Your task to perform on an android device: What's on my calendar today? Image 0: 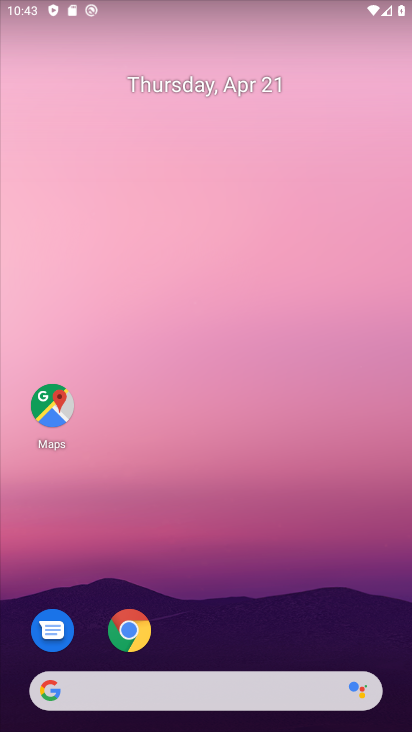
Step 0: drag from (308, 647) to (324, 136)
Your task to perform on an android device: What's on my calendar today? Image 1: 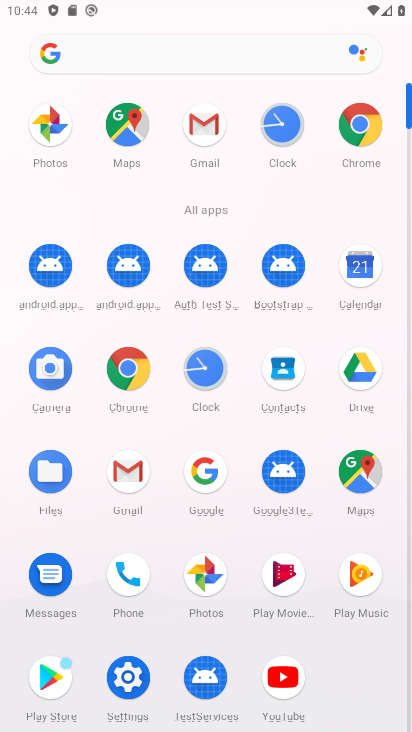
Step 1: drag from (259, 220) to (303, 39)
Your task to perform on an android device: What's on my calendar today? Image 2: 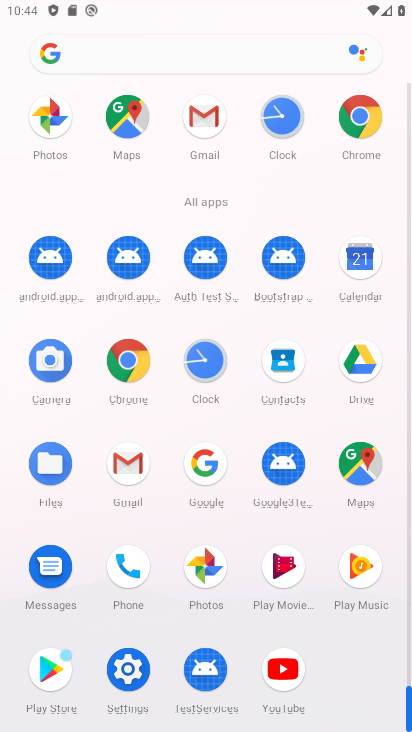
Step 2: click (365, 253)
Your task to perform on an android device: What's on my calendar today? Image 3: 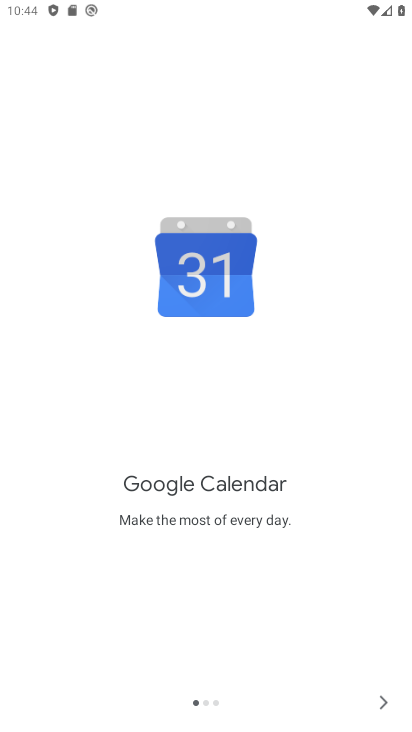
Step 3: click (379, 702)
Your task to perform on an android device: What's on my calendar today? Image 4: 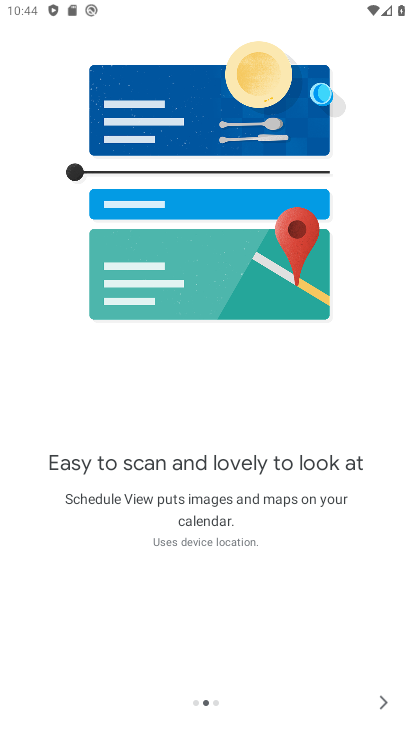
Step 4: click (379, 702)
Your task to perform on an android device: What's on my calendar today? Image 5: 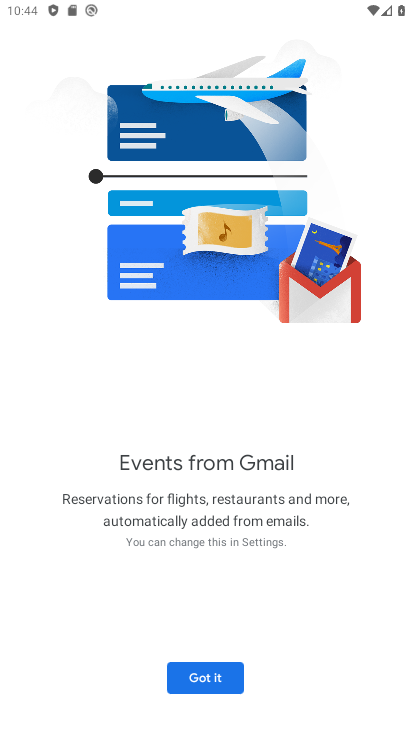
Step 5: click (239, 681)
Your task to perform on an android device: What's on my calendar today? Image 6: 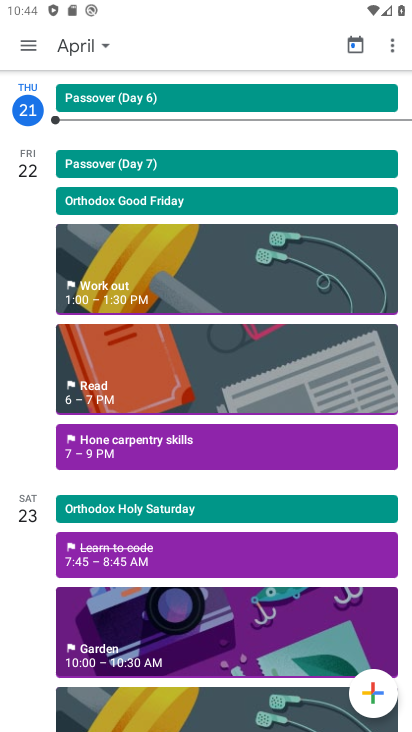
Step 6: click (97, 44)
Your task to perform on an android device: What's on my calendar today? Image 7: 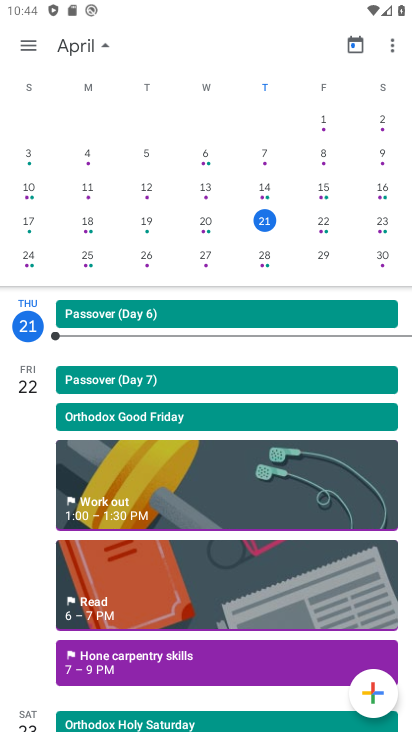
Step 7: click (261, 219)
Your task to perform on an android device: What's on my calendar today? Image 8: 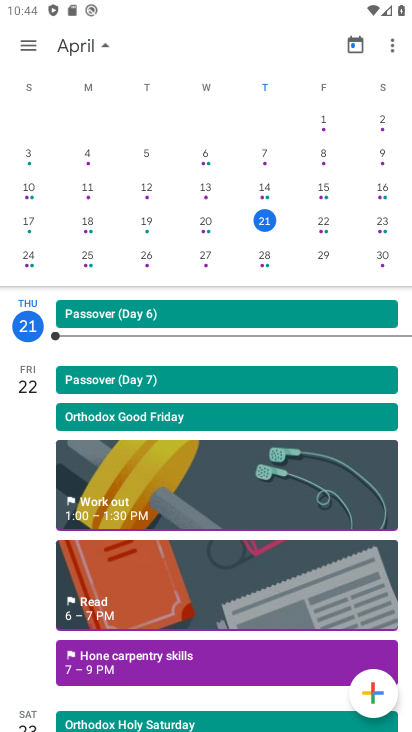
Step 8: task complete